Your task to perform on an android device: turn off data saver in the chrome app Image 0: 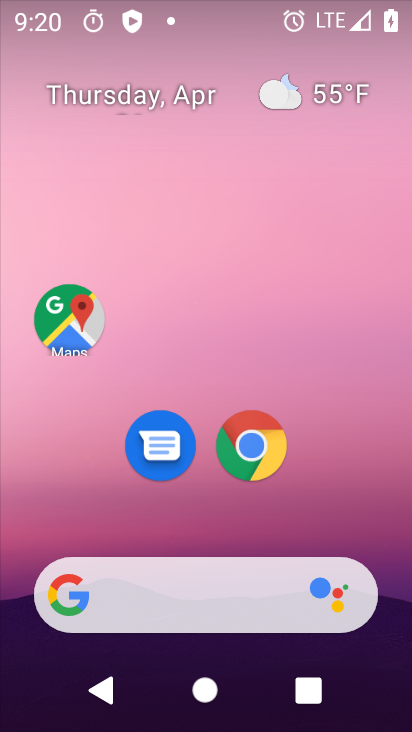
Step 0: click (259, 455)
Your task to perform on an android device: turn off data saver in the chrome app Image 1: 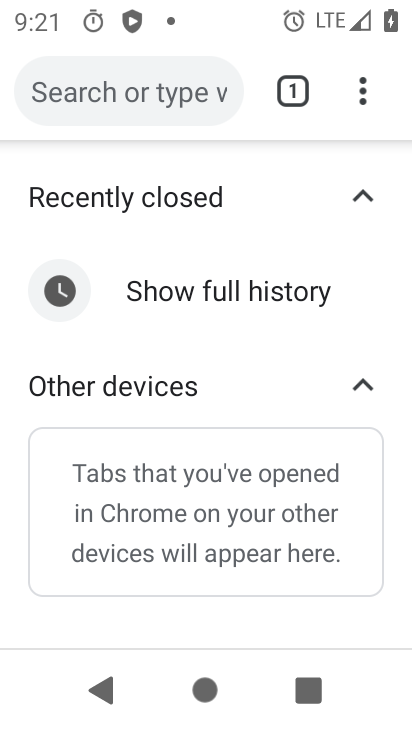
Step 1: click (359, 90)
Your task to perform on an android device: turn off data saver in the chrome app Image 2: 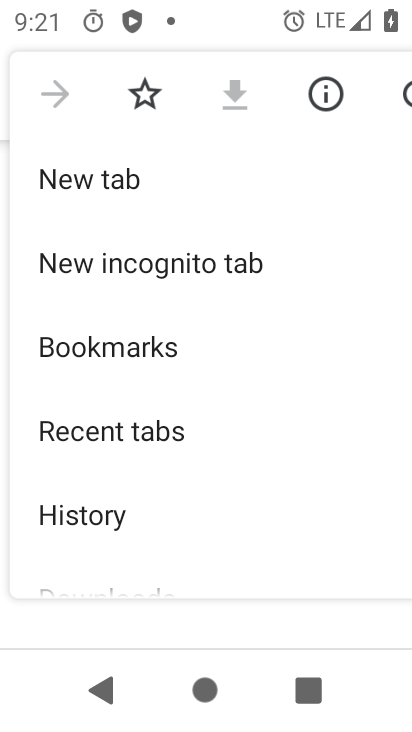
Step 2: drag from (291, 475) to (246, 14)
Your task to perform on an android device: turn off data saver in the chrome app Image 3: 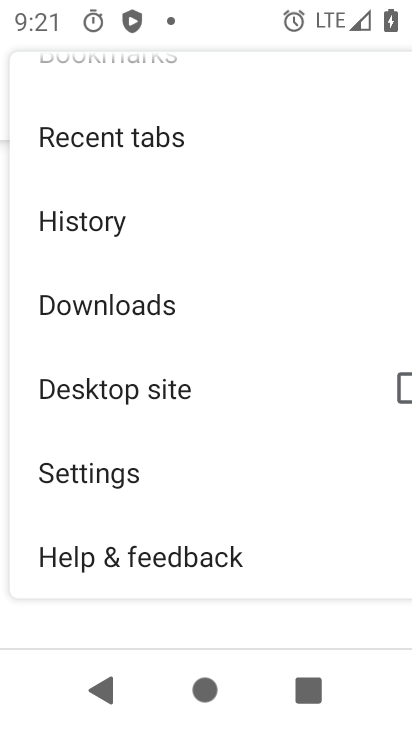
Step 3: drag from (169, 501) to (174, 59)
Your task to perform on an android device: turn off data saver in the chrome app Image 4: 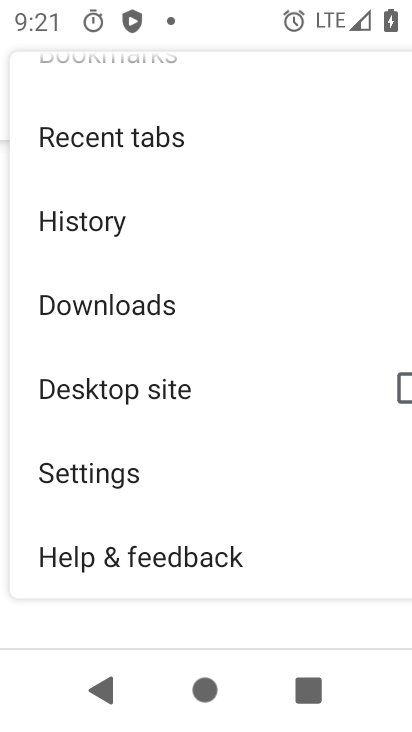
Step 4: click (115, 478)
Your task to perform on an android device: turn off data saver in the chrome app Image 5: 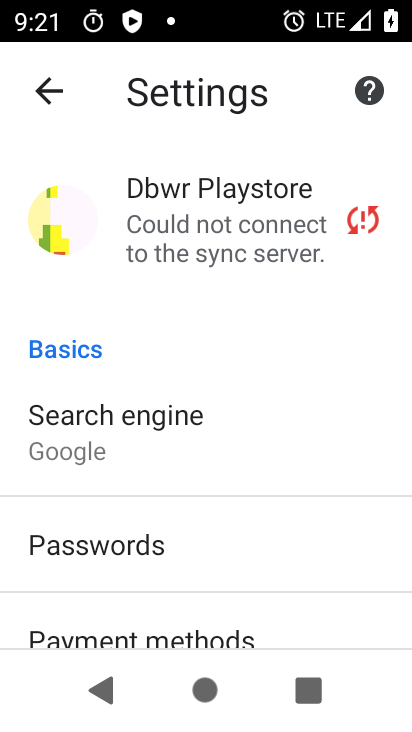
Step 5: drag from (221, 548) to (233, 51)
Your task to perform on an android device: turn off data saver in the chrome app Image 6: 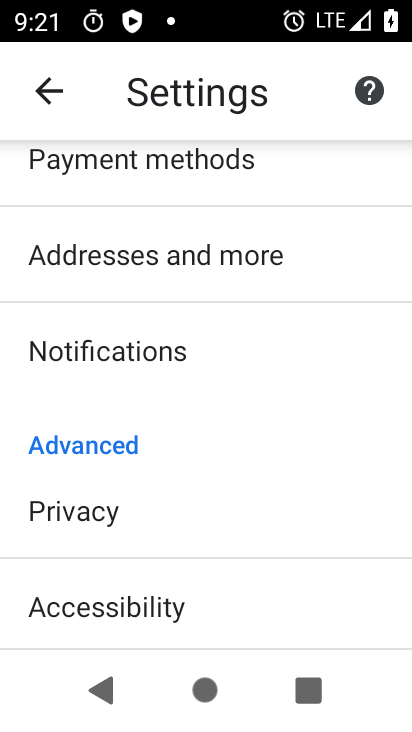
Step 6: drag from (307, 540) to (279, 191)
Your task to perform on an android device: turn off data saver in the chrome app Image 7: 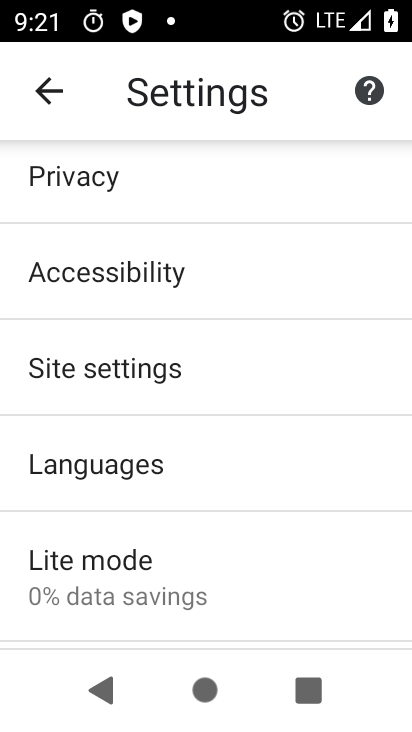
Step 7: click (139, 588)
Your task to perform on an android device: turn off data saver in the chrome app Image 8: 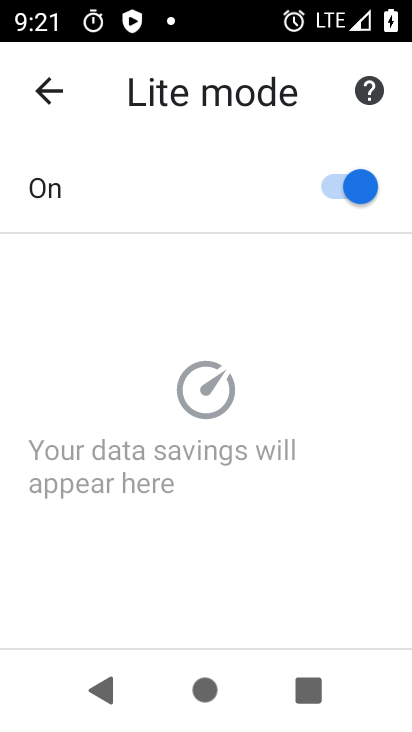
Step 8: click (348, 195)
Your task to perform on an android device: turn off data saver in the chrome app Image 9: 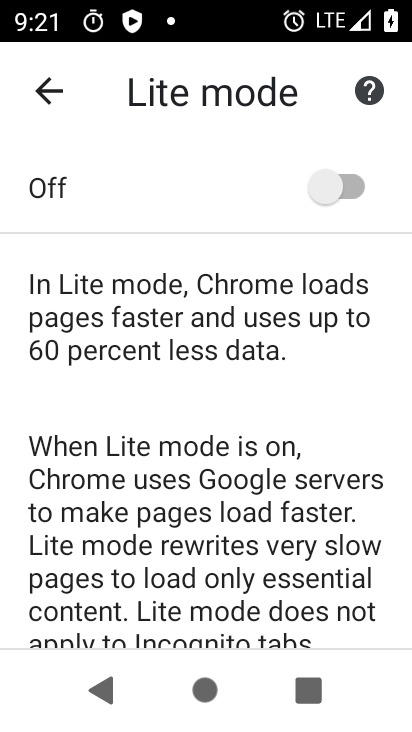
Step 9: task complete